Your task to perform on an android device: Go to calendar. Show me events next week Image 0: 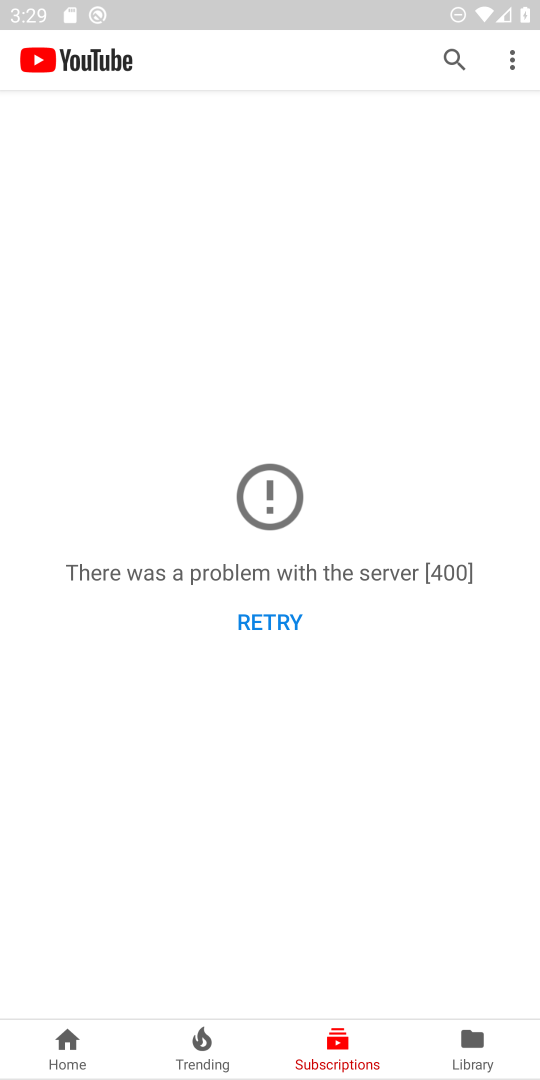
Step 0: press home button
Your task to perform on an android device: Go to calendar. Show me events next week Image 1: 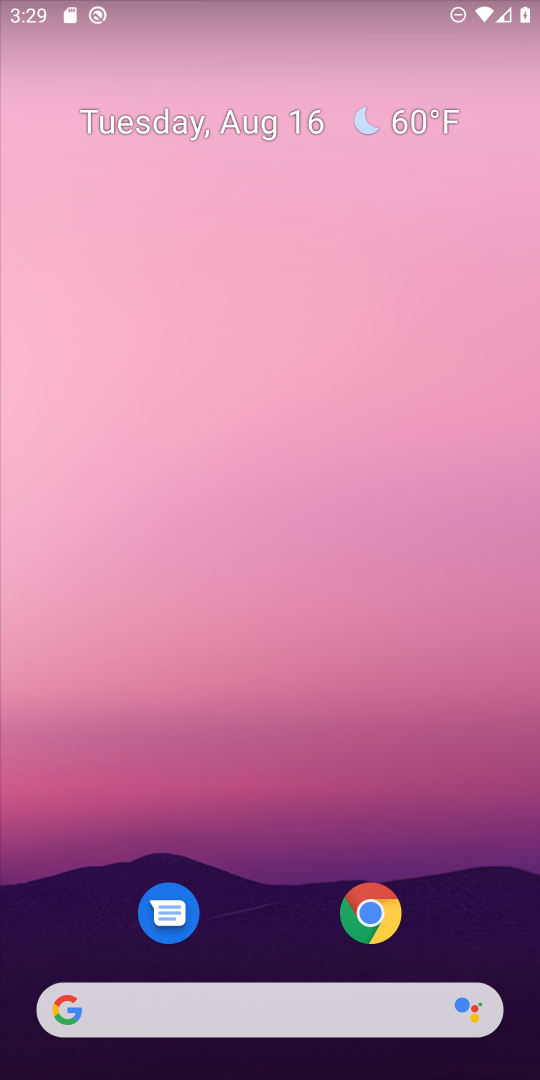
Step 1: drag from (513, 951) to (446, 147)
Your task to perform on an android device: Go to calendar. Show me events next week Image 2: 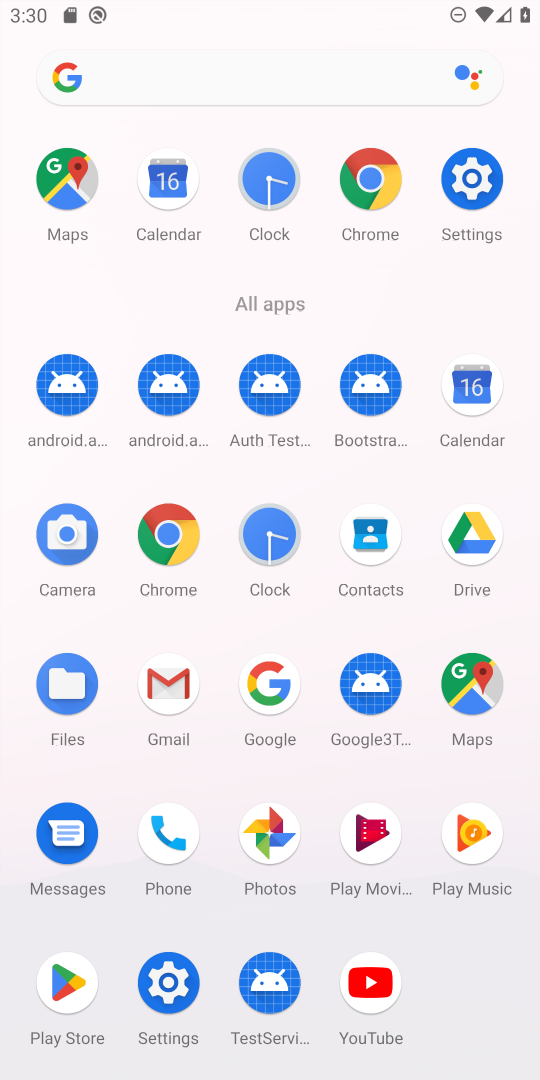
Step 2: click (474, 382)
Your task to perform on an android device: Go to calendar. Show me events next week Image 3: 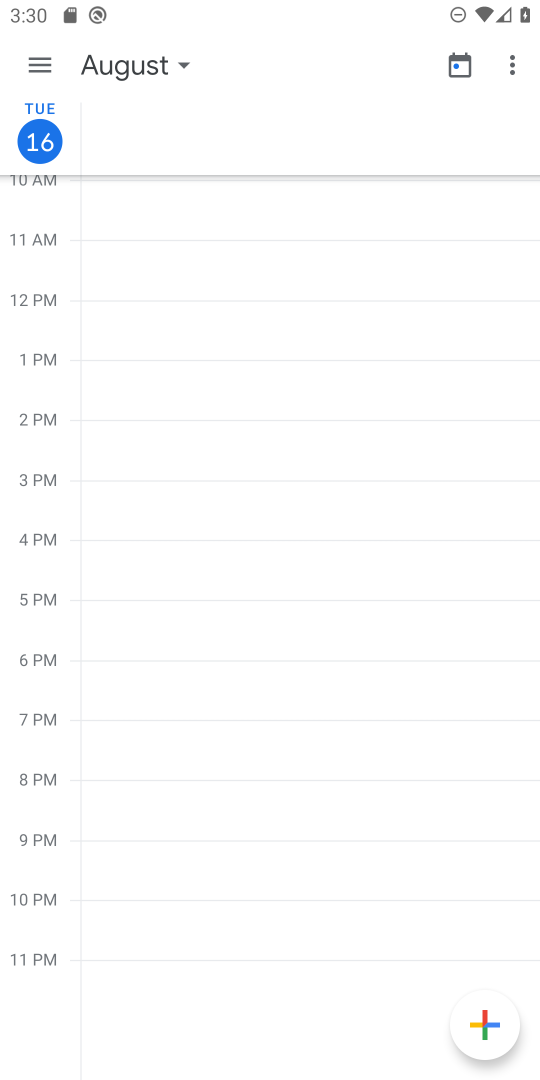
Step 3: click (36, 64)
Your task to perform on an android device: Go to calendar. Show me events next week Image 4: 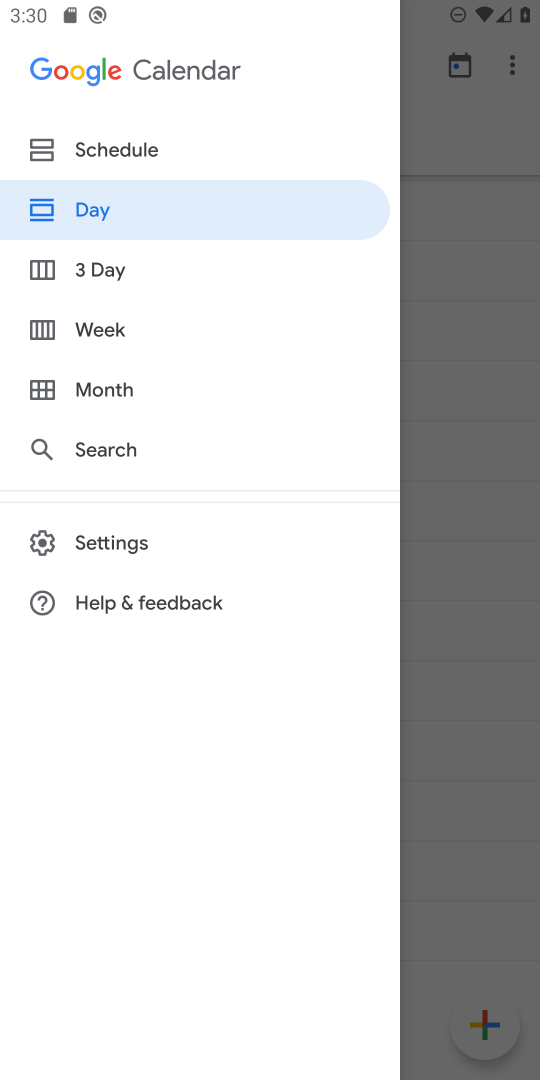
Step 4: click (103, 331)
Your task to perform on an android device: Go to calendar. Show me events next week Image 5: 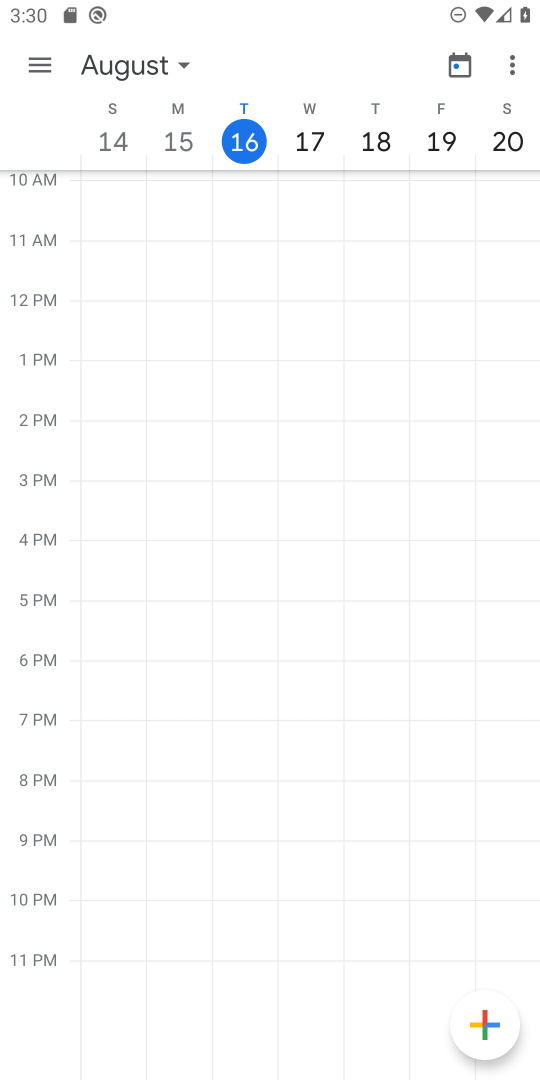
Step 5: click (176, 66)
Your task to perform on an android device: Go to calendar. Show me events next week Image 6: 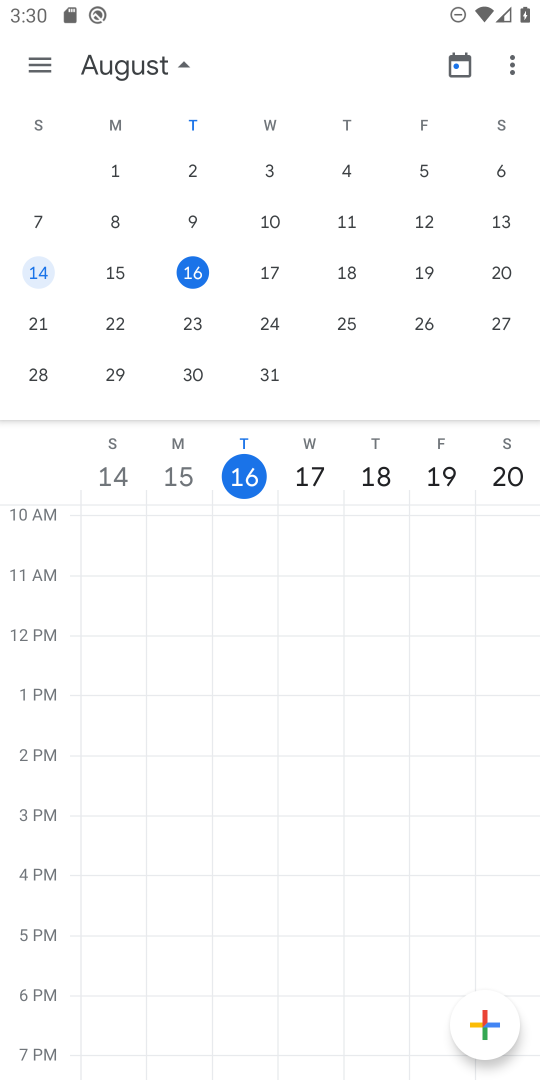
Step 6: click (36, 327)
Your task to perform on an android device: Go to calendar. Show me events next week Image 7: 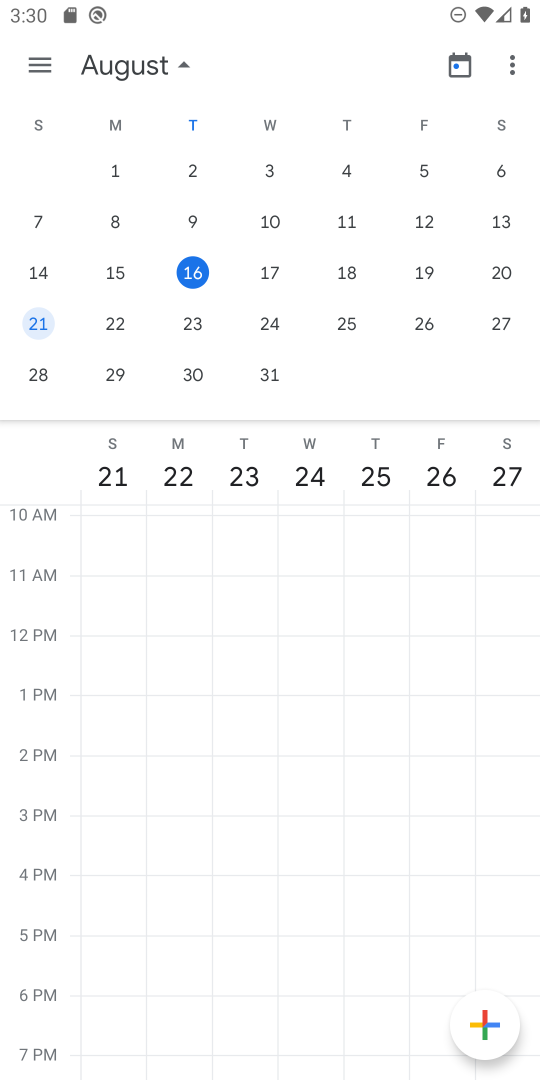
Step 7: task complete